Your task to perform on an android device: Go to sound settings Image 0: 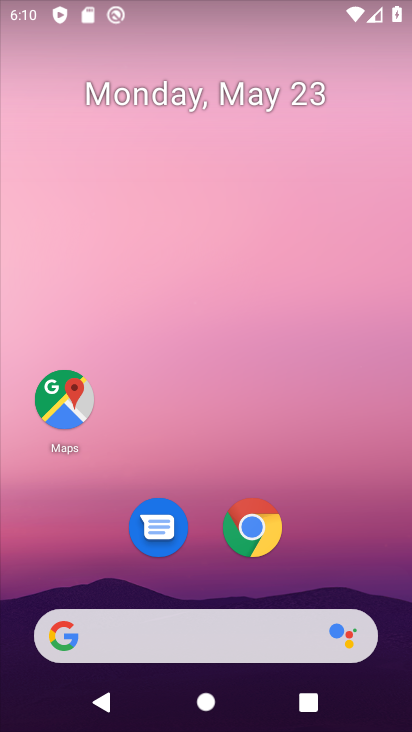
Step 0: drag from (322, 530) to (368, 95)
Your task to perform on an android device: Go to sound settings Image 1: 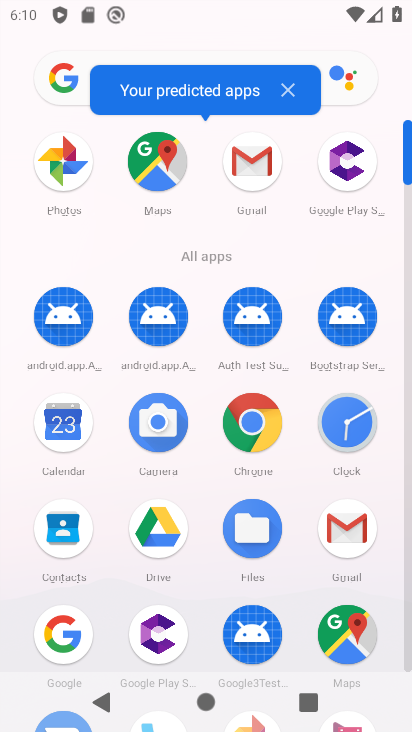
Step 1: drag from (287, 261) to (309, 2)
Your task to perform on an android device: Go to sound settings Image 2: 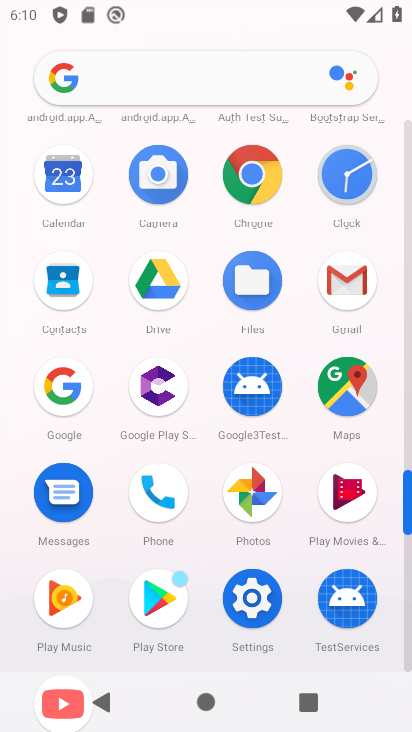
Step 2: click (249, 607)
Your task to perform on an android device: Go to sound settings Image 3: 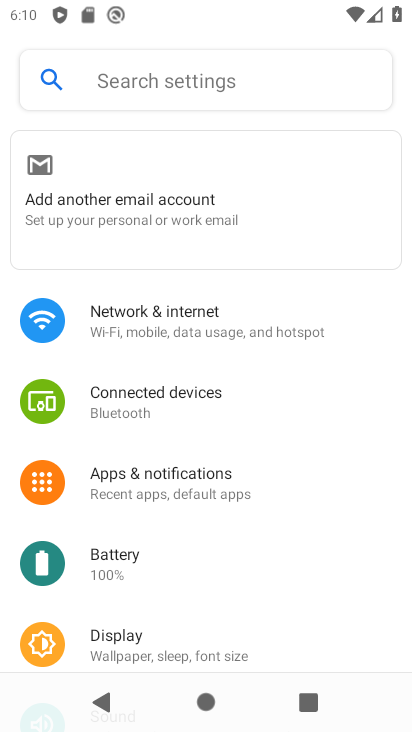
Step 3: drag from (194, 574) to (142, 228)
Your task to perform on an android device: Go to sound settings Image 4: 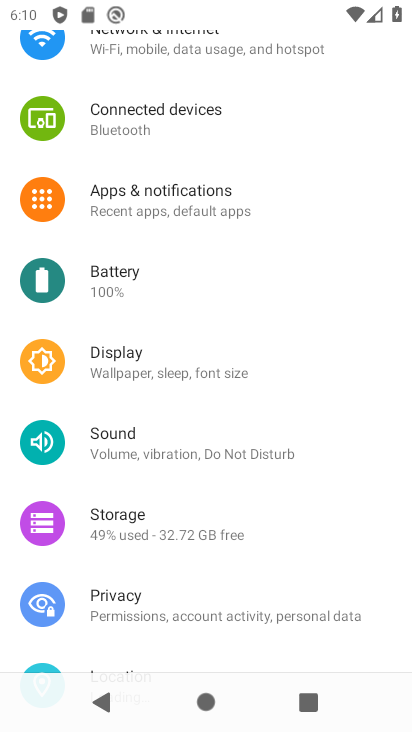
Step 4: click (104, 445)
Your task to perform on an android device: Go to sound settings Image 5: 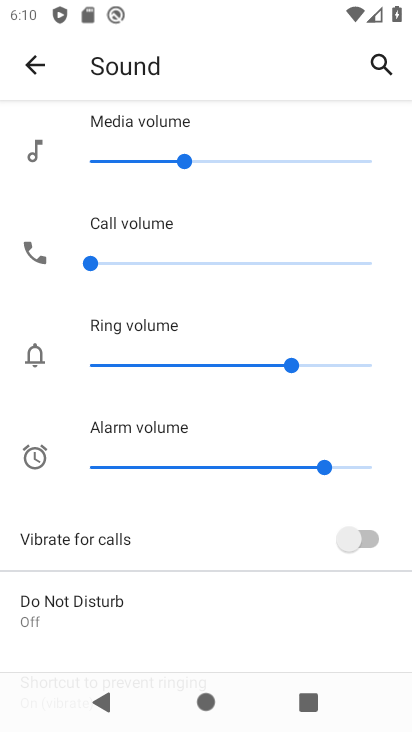
Step 5: task complete